Your task to perform on an android device: choose inbox layout in the gmail app Image 0: 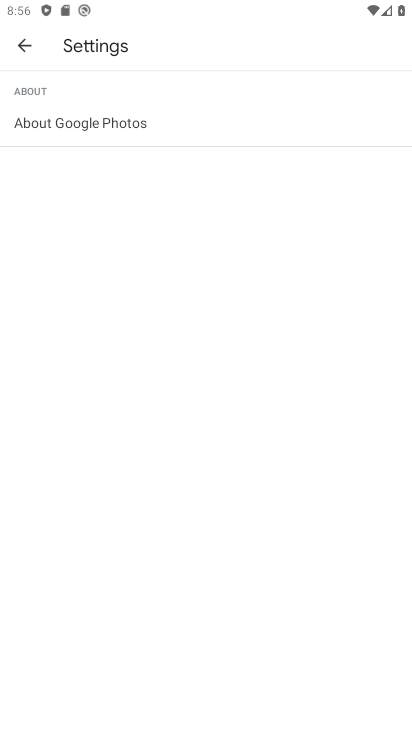
Step 0: press home button
Your task to perform on an android device: choose inbox layout in the gmail app Image 1: 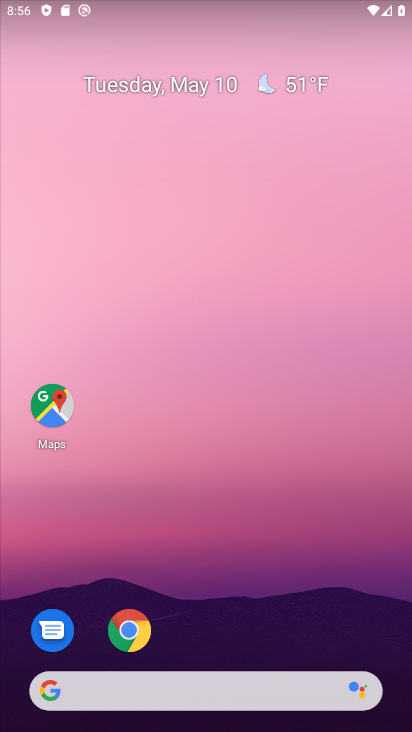
Step 1: drag from (317, 613) to (120, 2)
Your task to perform on an android device: choose inbox layout in the gmail app Image 2: 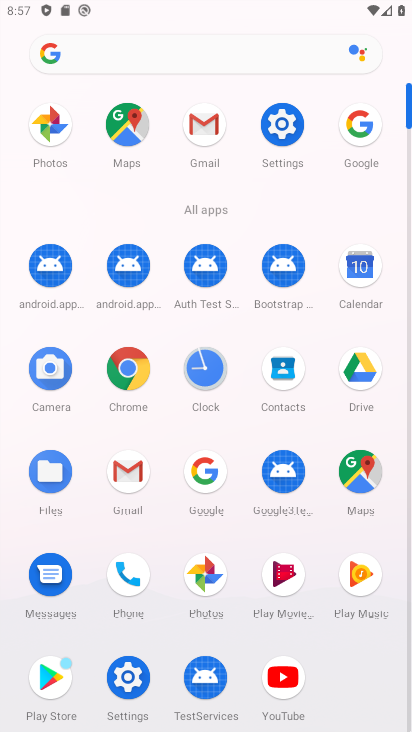
Step 2: click (197, 116)
Your task to perform on an android device: choose inbox layout in the gmail app Image 3: 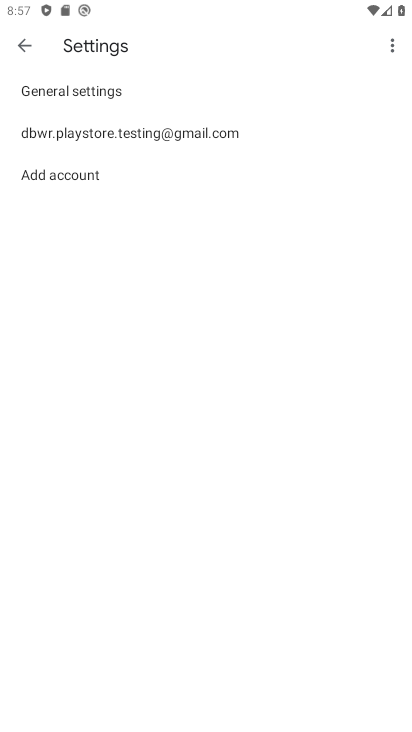
Step 3: click (25, 50)
Your task to perform on an android device: choose inbox layout in the gmail app Image 4: 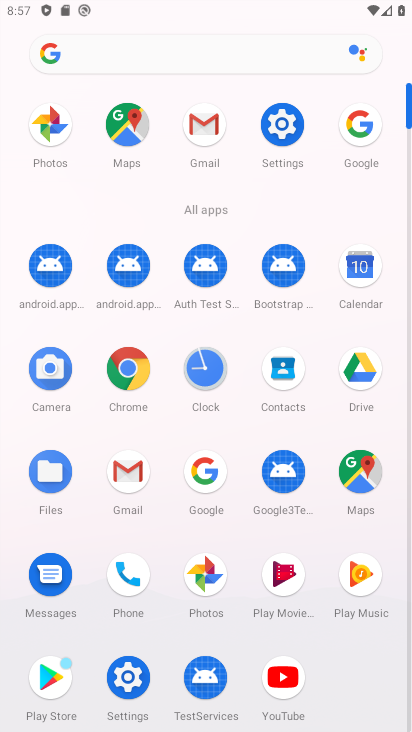
Step 4: click (195, 149)
Your task to perform on an android device: choose inbox layout in the gmail app Image 5: 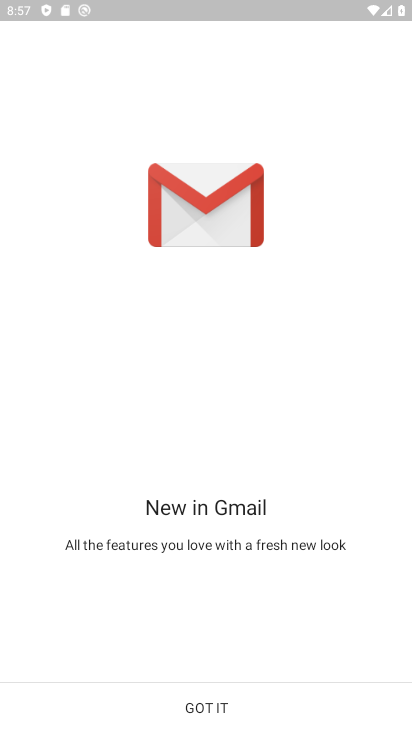
Step 5: click (276, 704)
Your task to perform on an android device: choose inbox layout in the gmail app Image 6: 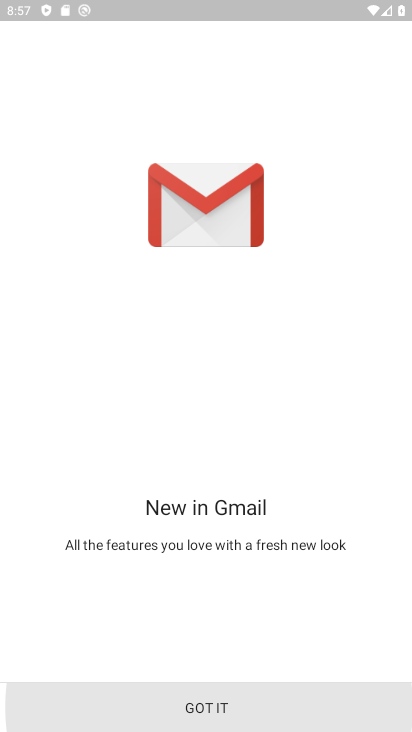
Step 6: click (257, 690)
Your task to perform on an android device: choose inbox layout in the gmail app Image 7: 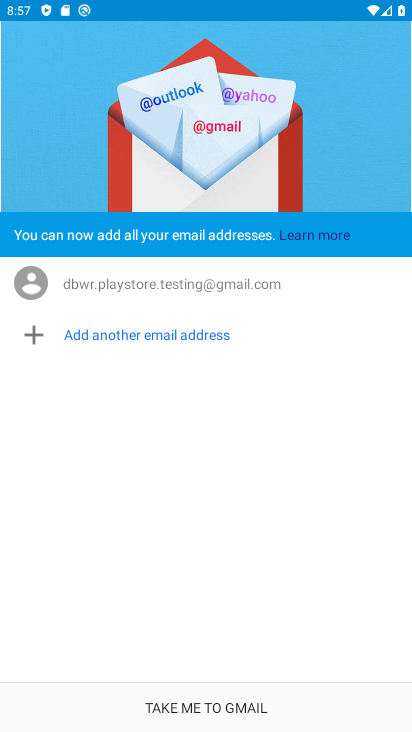
Step 7: click (252, 688)
Your task to perform on an android device: choose inbox layout in the gmail app Image 8: 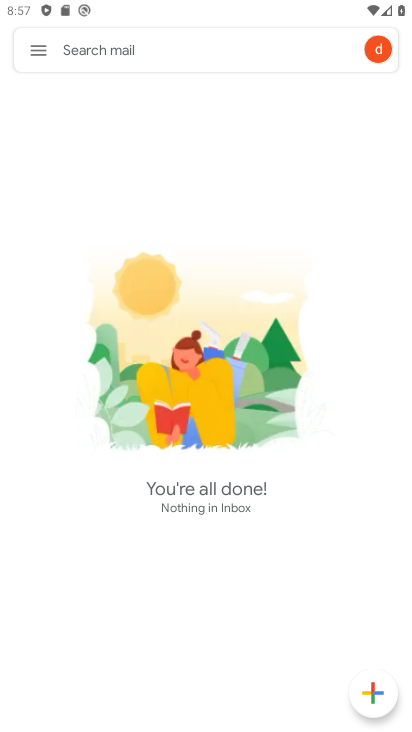
Step 8: click (37, 46)
Your task to perform on an android device: choose inbox layout in the gmail app Image 9: 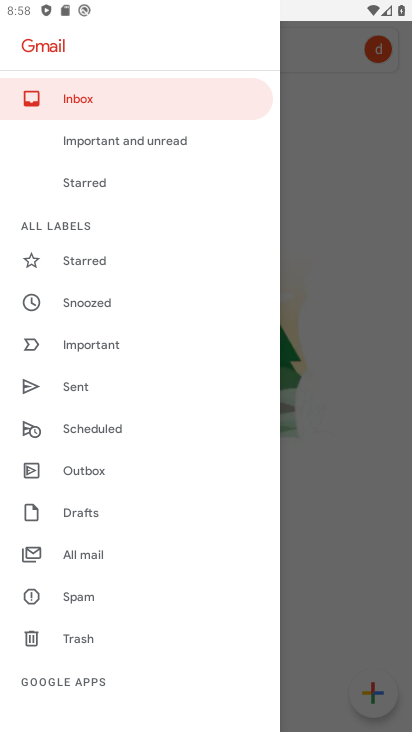
Step 9: drag from (135, 679) to (127, 348)
Your task to perform on an android device: choose inbox layout in the gmail app Image 10: 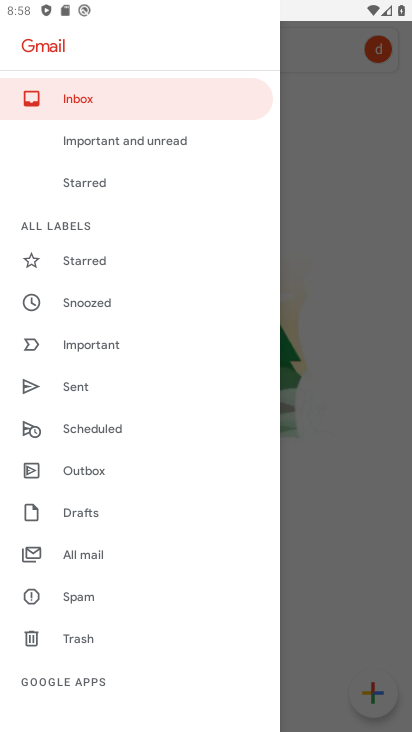
Step 10: drag from (87, 592) to (144, 203)
Your task to perform on an android device: choose inbox layout in the gmail app Image 11: 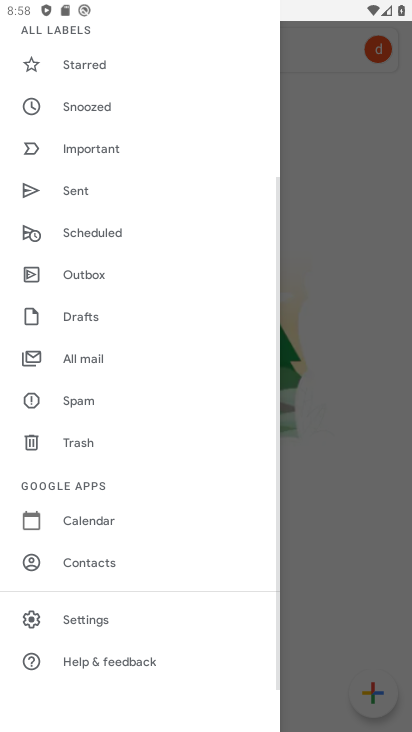
Step 11: click (58, 616)
Your task to perform on an android device: choose inbox layout in the gmail app Image 12: 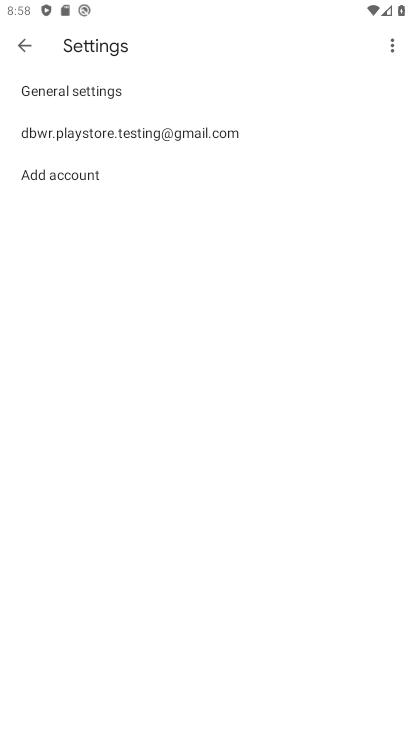
Step 12: click (194, 137)
Your task to perform on an android device: choose inbox layout in the gmail app Image 13: 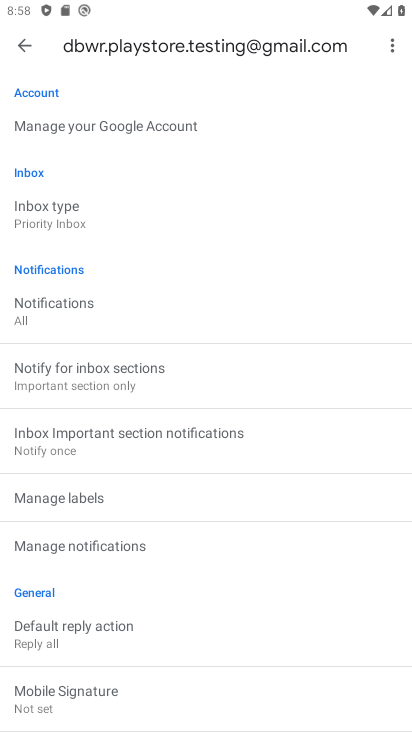
Step 13: drag from (224, 681) to (235, 404)
Your task to perform on an android device: choose inbox layout in the gmail app Image 14: 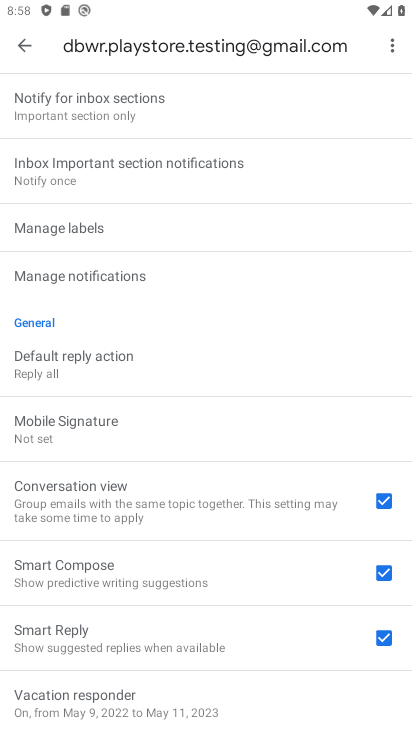
Step 14: drag from (179, 639) to (125, 496)
Your task to perform on an android device: choose inbox layout in the gmail app Image 15: 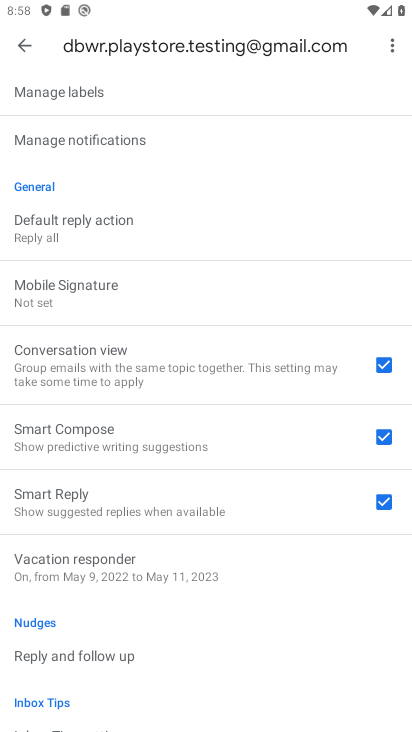
Step 15: drag from (188, 109) to (311, 683)
Your task to perform on an android device: choose inbox layout in the gmail app Image 16: 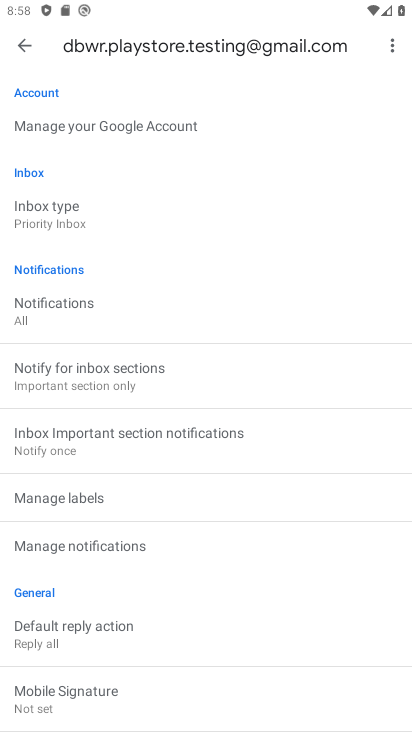
Step 16: drag from (281, 468) to (280, 730)
Your task to perform on an android device: choose inbox layout in the gmail app Image 17: 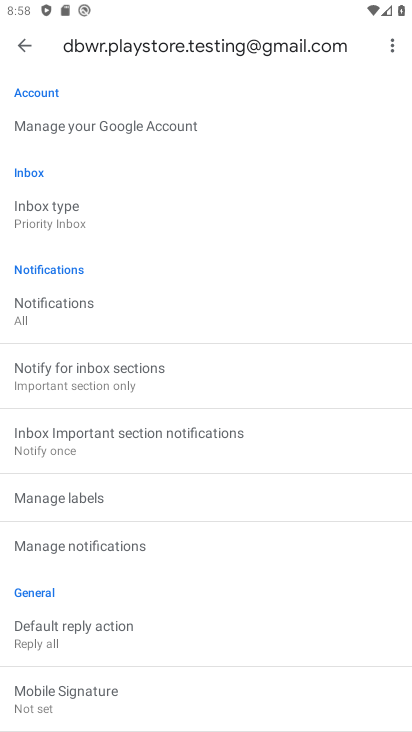
Step 17: drag from (207, 608) to (248, 309)
Your task to perform on an android device: choose inbox layout in the gmail app Image 18: 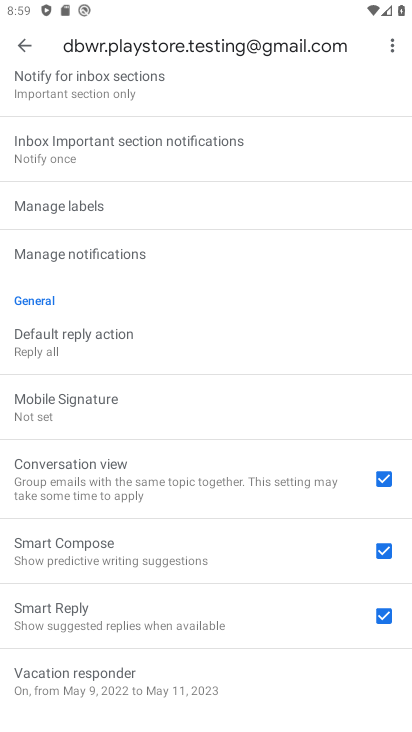
Step 18: drag from (232, 329) to (300, 653)
Your task to perform on an android device: choose inbox layout in the gmail app Image 19: 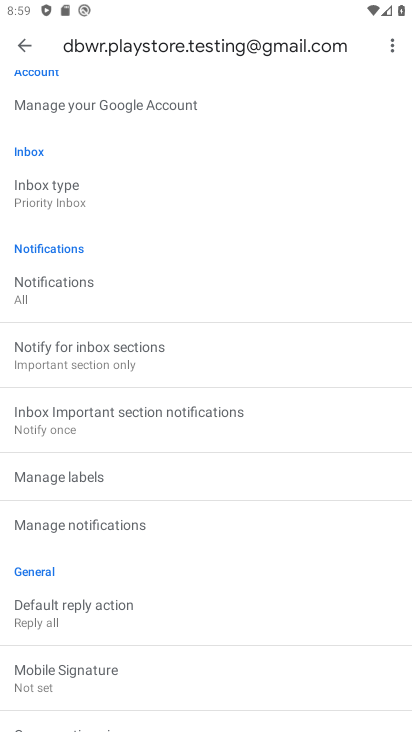
Step 19: drag from (200, 229) to (310, 702)
Your task to perform on an android device: choose inbox layout in the gmail app Image 20: 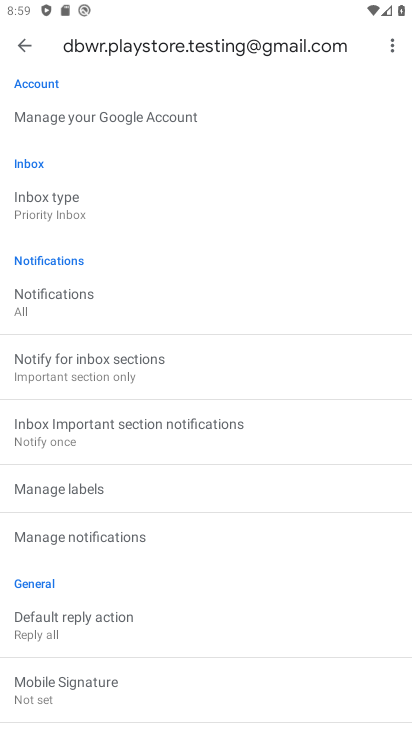
Step 20: click (50, 201)
Your task to perform on an android device: choose inbox layout in the gmail app Image 21: 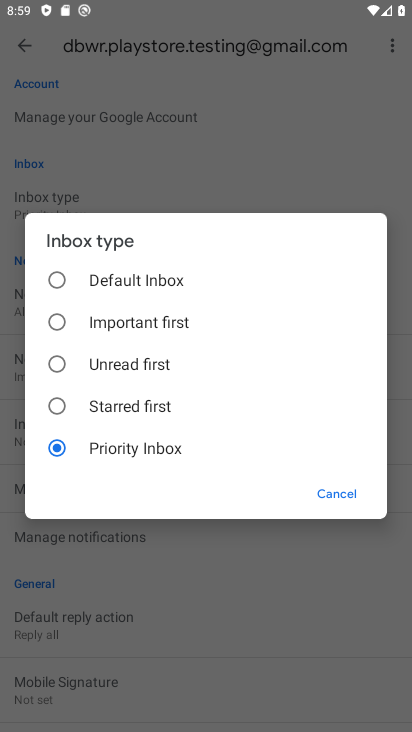
Step 21: click (59, 363)
Your task to perform on an android device: choose inbox layout in the gmail app Image 22: 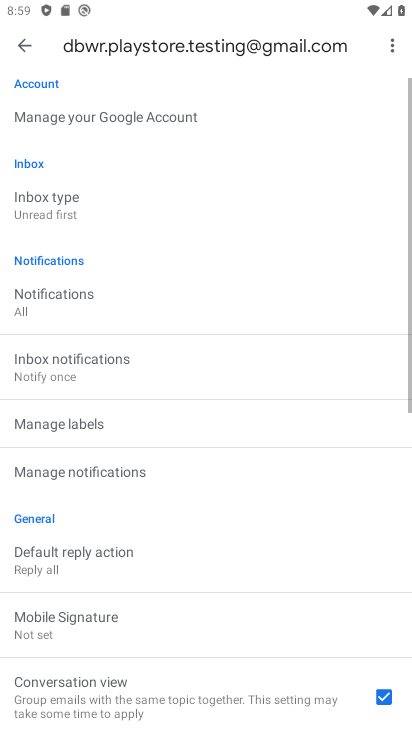
Step 22: task complete